Your task to perform on an android device: Open display settings Image 0: 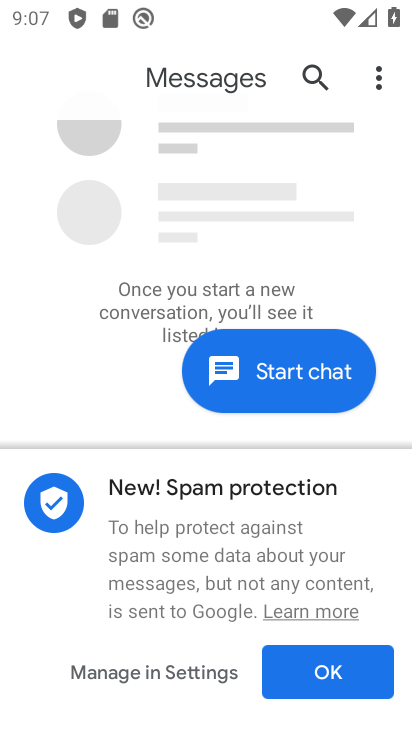
Step 0: press home button
Your task to perform on an android device: Open display settings Image 1: 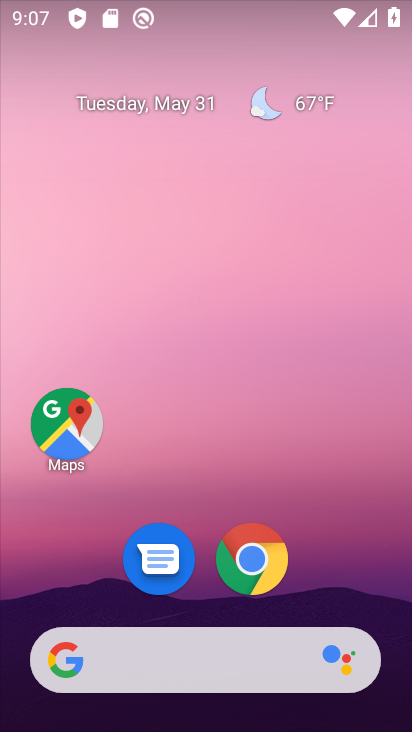
Step 1: drag from (198, 581) to (232, 98)
Your task to perform on an android device: Open display settings Image 2: 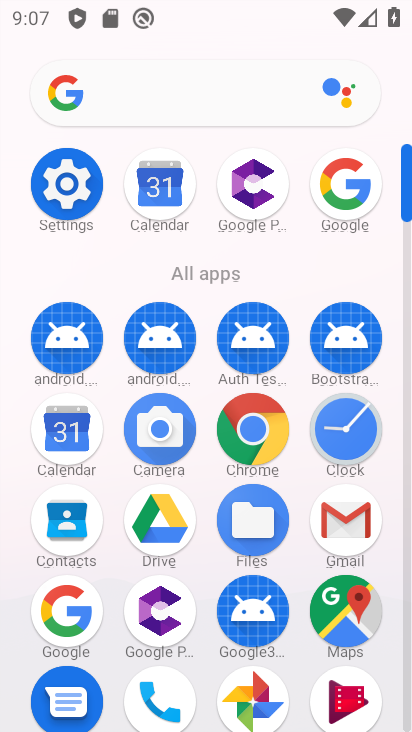
Step 2: click (68, 197)
Your task to perform on an android device: Open display settings Image 3: 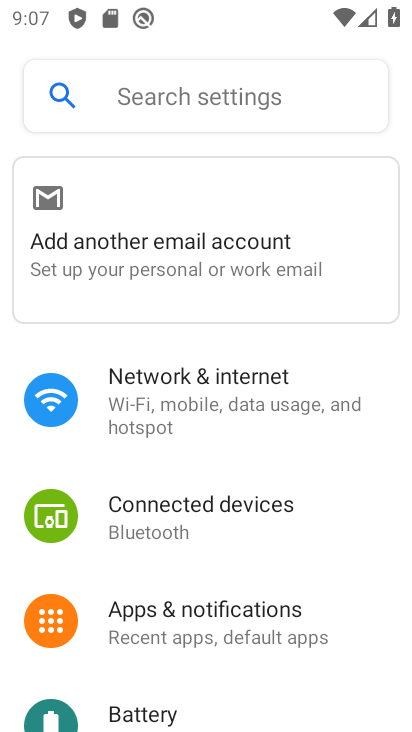
Step 3: drag from (253, 635) to (267, 172)
Your task to perform on an android device: Open display settings Image 4: 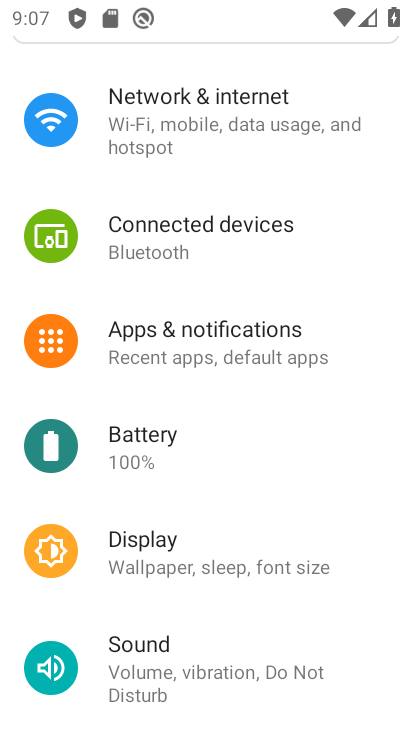
Step 4: click (198, 550)
Your task to perform on an android device: Open display settings Image 5: 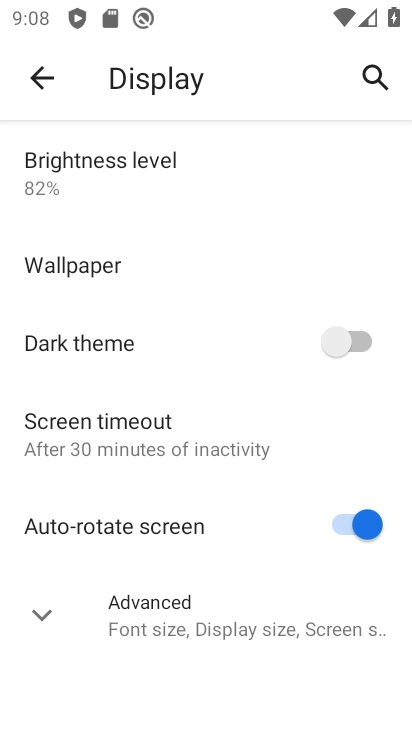
Step 5: task complete